Your task to perform on an android device: see creations saved in the google photos Image 0: 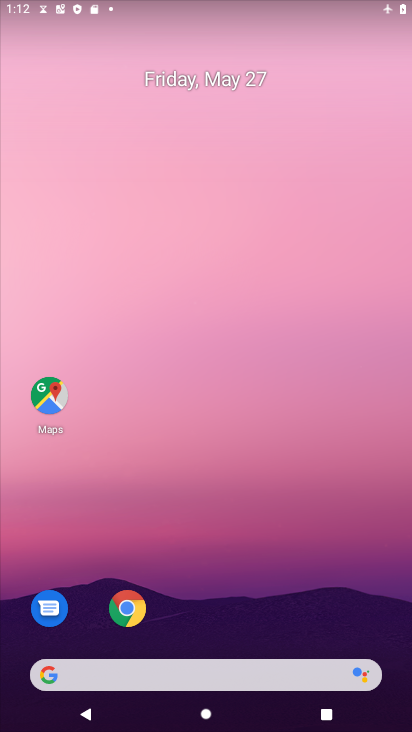
Step 0: drag from (238, 604) to (297, 21)
Your task to perform on an android device: see creations saved in the google photos Image 1: 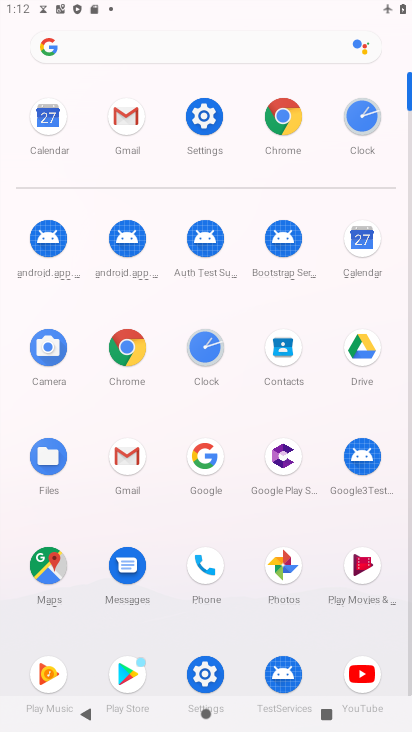
Step 1: click (274, 567)
Your task to perform on an android device: see creations saved in the google photos Image 2: 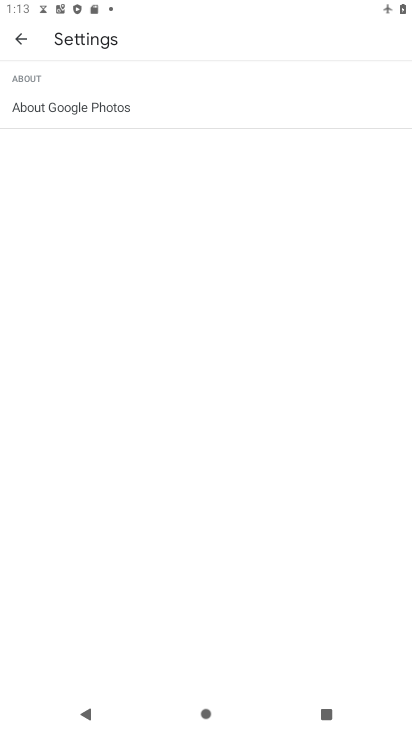
Step 2: click (16, 31)
Your task to perform on an android device: see creations saved in the google photos Image 3: 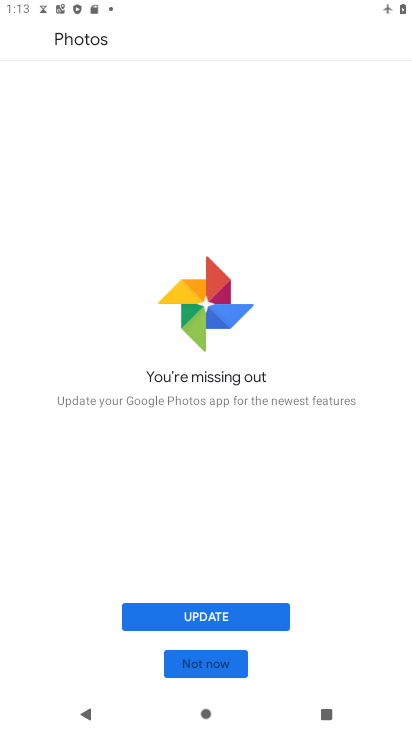
Step 3: task complete